Your task to perform on an android device: open app "Spotify" Image 0: 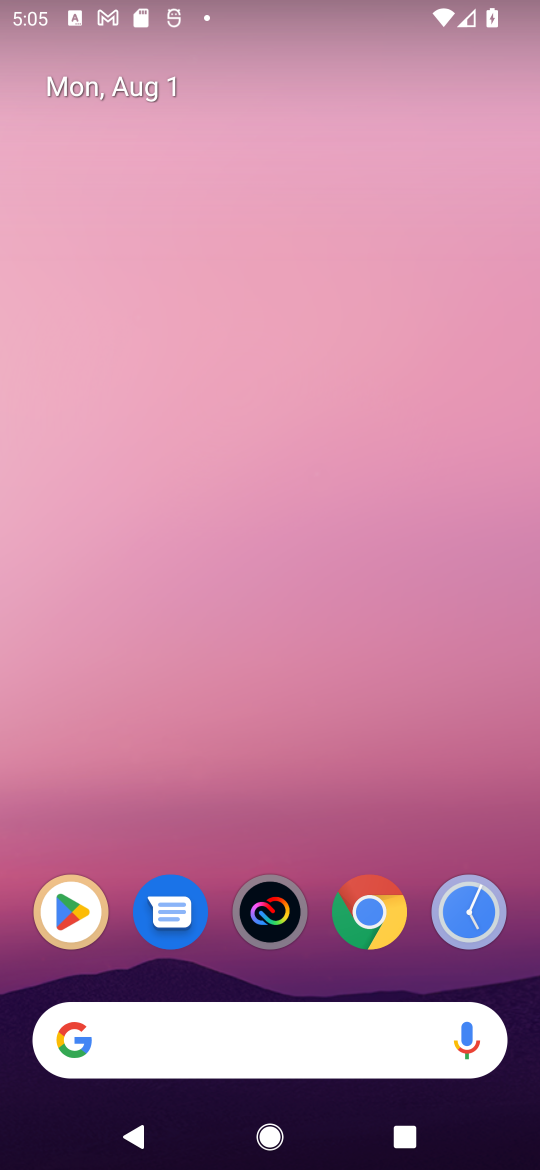
Step 0: click (82, 916)
Your task to perform on an android device: open app "Spotify" Image 1: 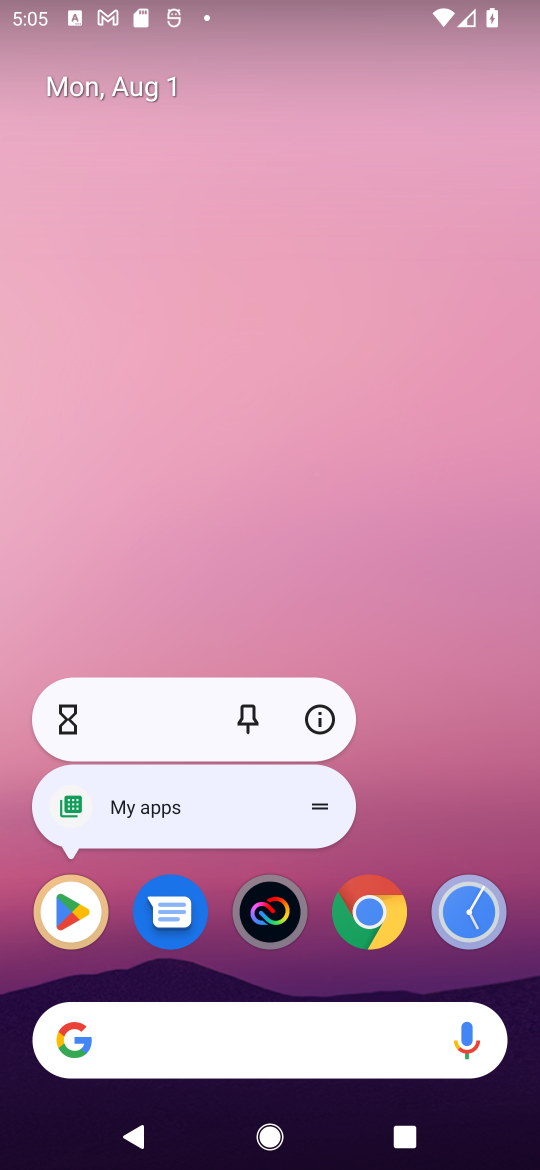
Step 1: click (69, 921)
Your task to perform on an android device: open app "Spotify" Image 2: 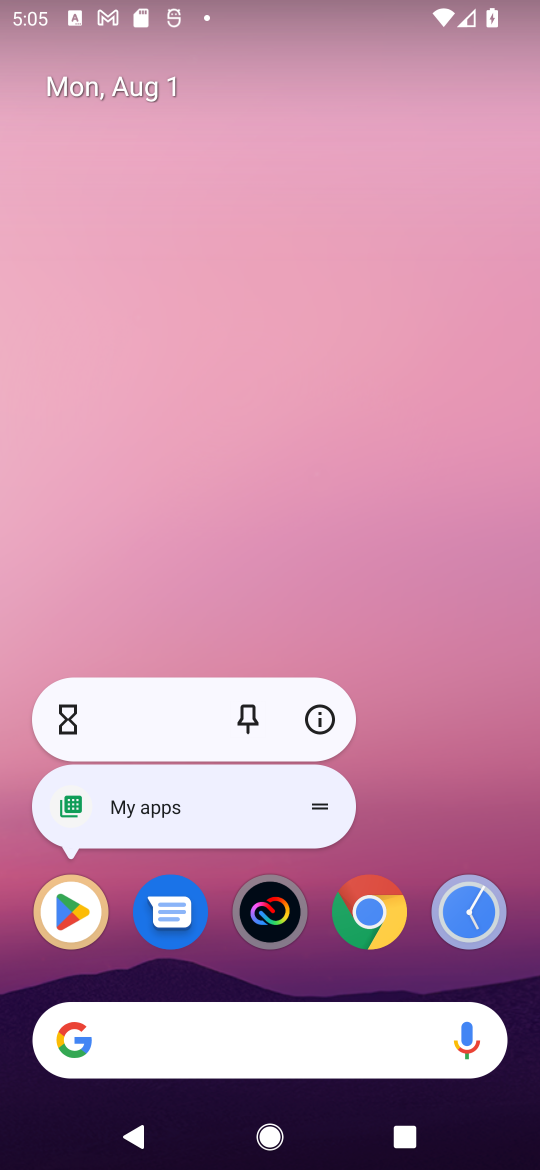
Step 2: click (69, 921)
Your task to perform on an android device: open app "Spotify" Image 3: 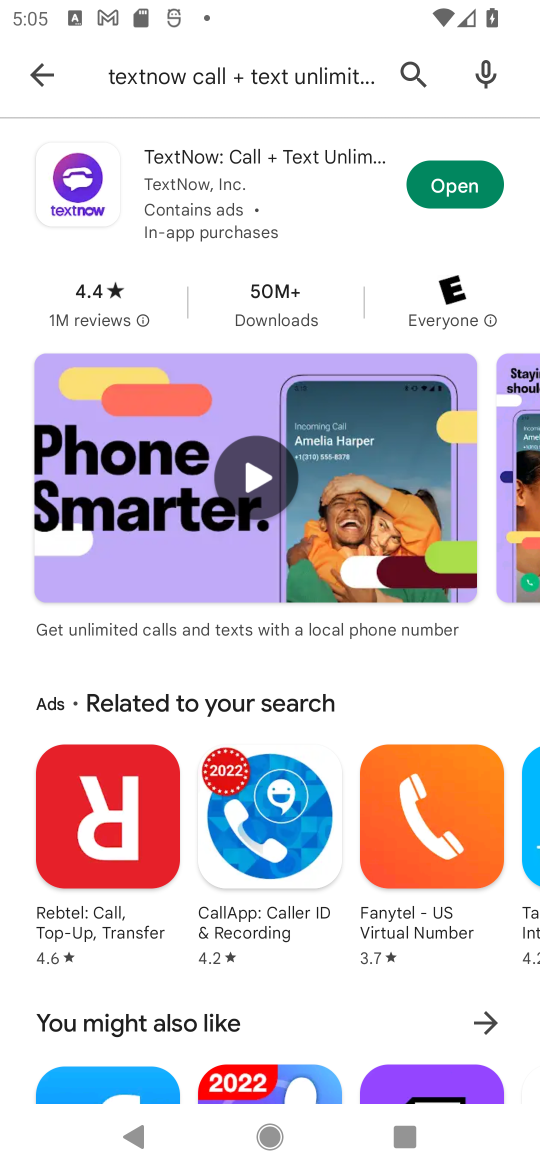
Step 3: click (408, 74)
Your task to perform on an android device: open app "Spotify" Image 4: 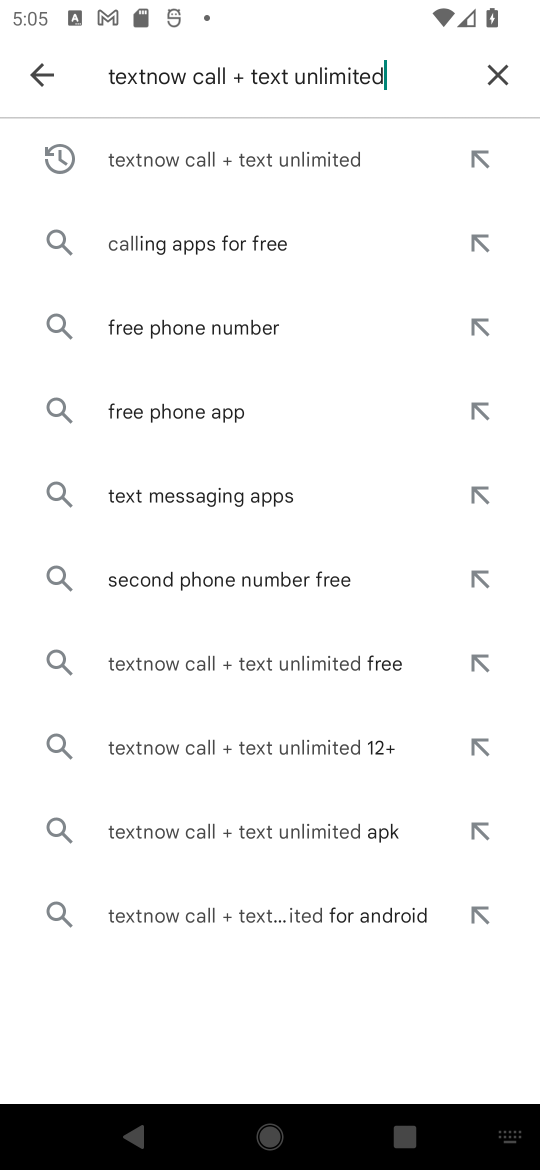
Step 4: click (496, 72)
Your task to perform on an android device: open app "Spotify" Image 5: 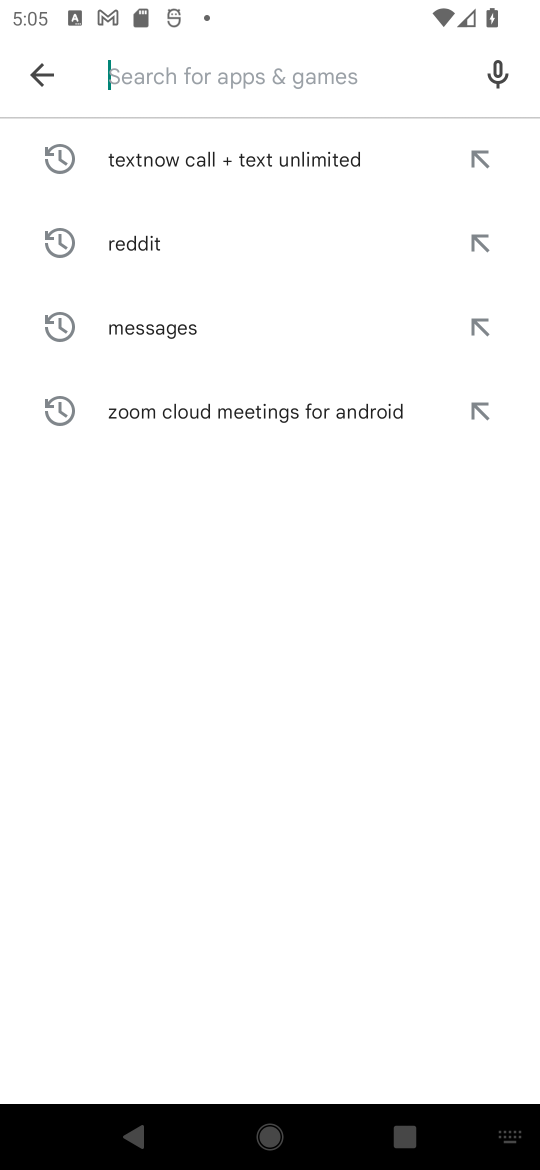
Step 5: type "Spotify"
Your task to perform on an android device: open app "Spotify" Image 6: 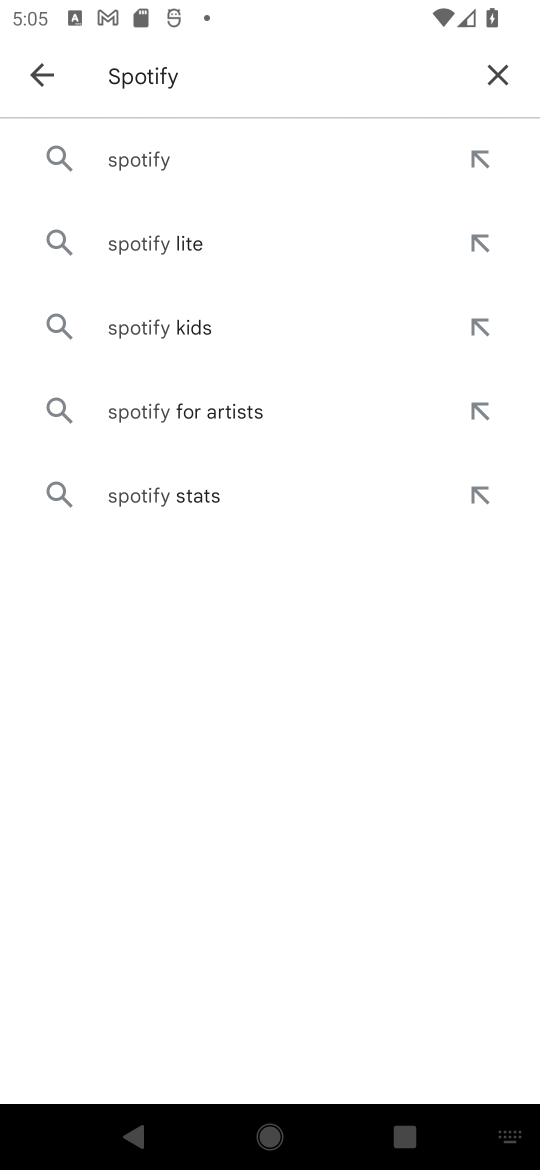
Step 6: click (117, 157)
Your task to perform on an android device: open app "Spotify" Image 7: 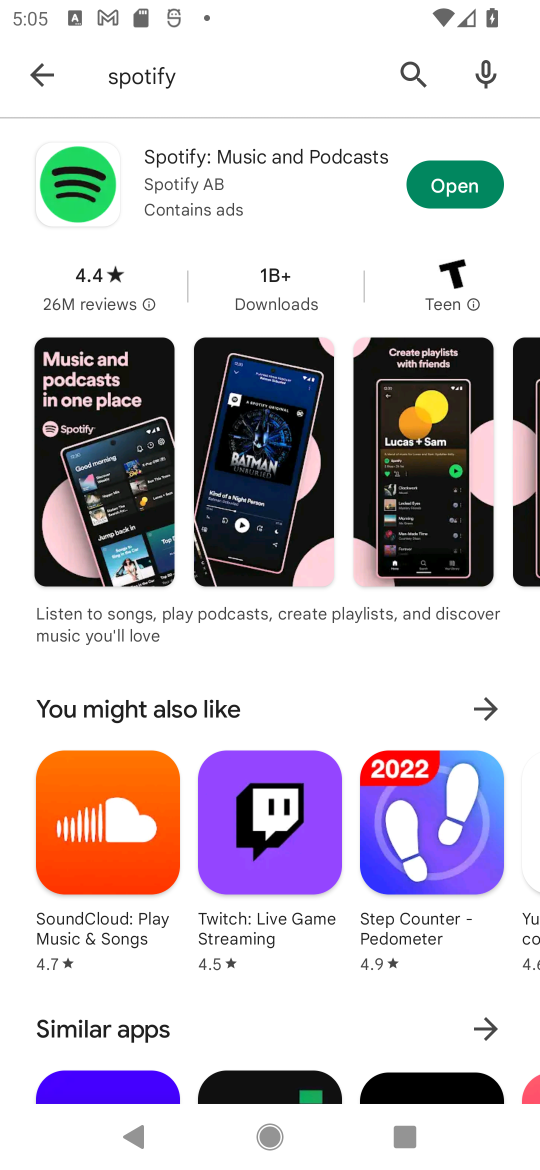
Step 7: click (454, 194)
Your task to perform on an android device: open app "Spotify" Image 8: 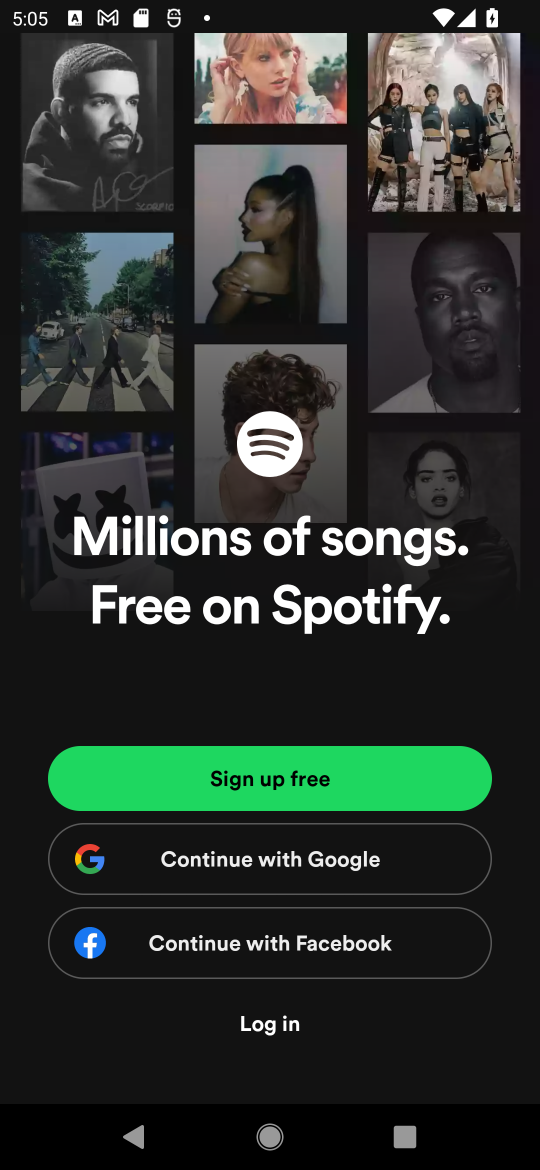
Step 8: task complete